Your task to perform on an android device: check google app version Image 0: 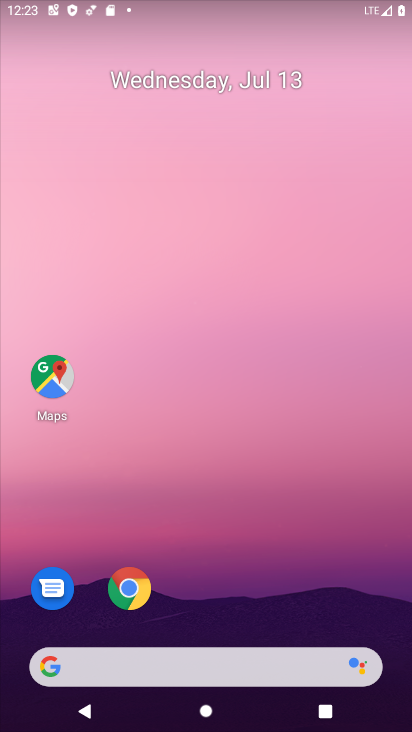
Step 0: drag from (403, 686) to (366, 201)
Your task to perform on an android device: check google app version Image 1: 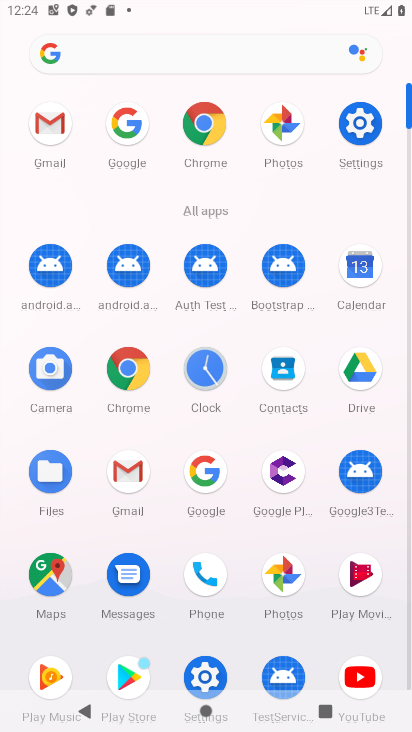
Step 1: click (204, 461)
Your task to perform on an android device: check google app version Image 2: 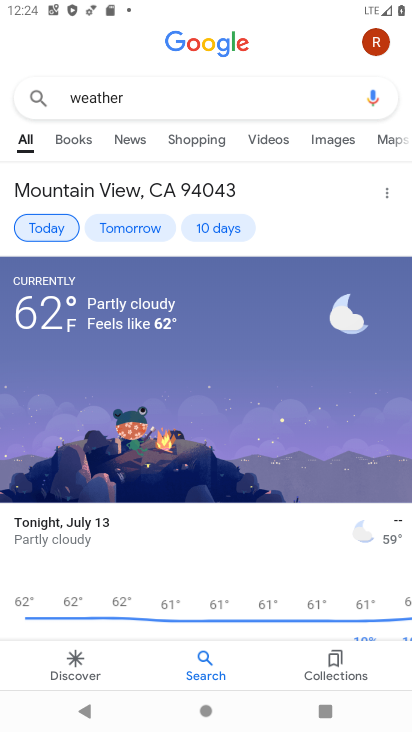
Step 2: click (348, 672)
Your task to perform on an android device: check google app version Image 3: 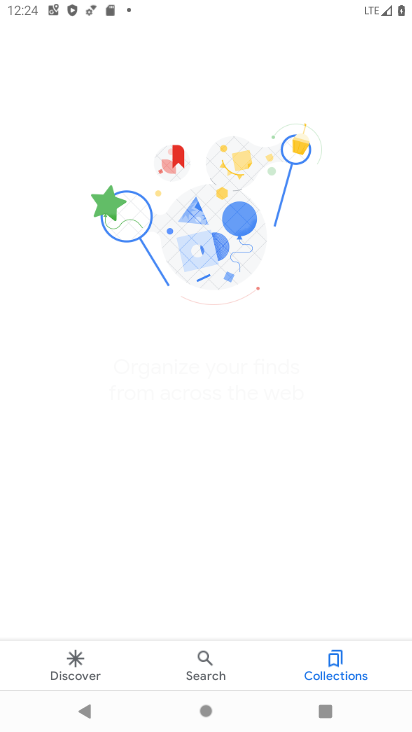
Step 3: task complete